Your task to perform on an android device: What is the news today? Image 0: 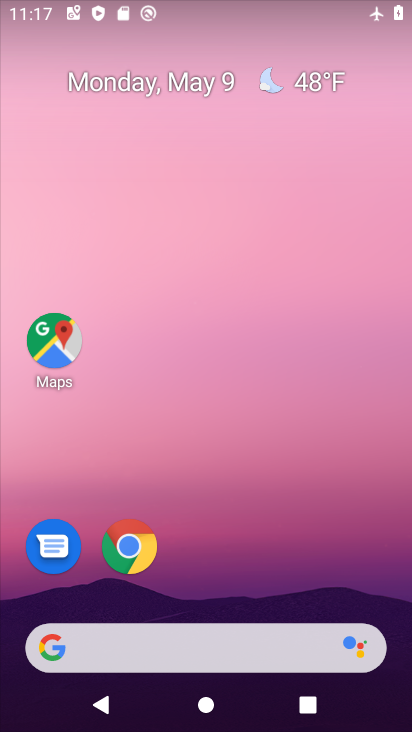
Step 0: drag from (4, 201) to (397, 271)
Your task to perform on an android device: What is the news today? Image 1: 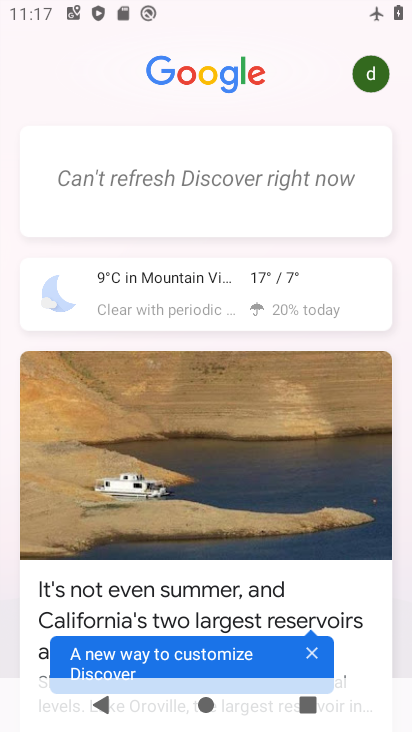
Step 1: task complete